Your task to perform on an android device: check google app version Image 0: 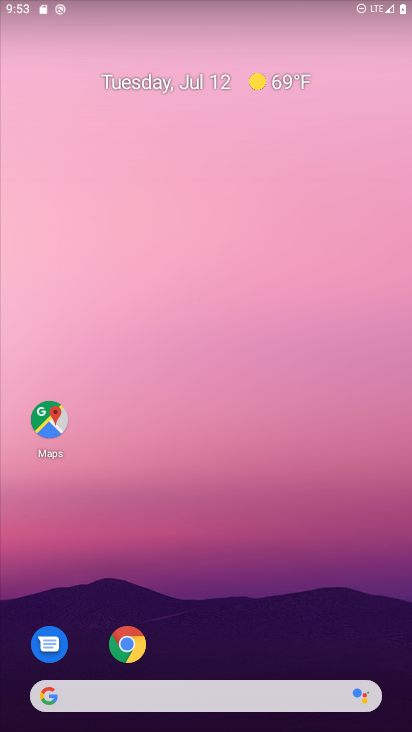
Step 0: drag from (223, 666) to (273, 76)
Your task to perform on an android device: check google app version Image 1: 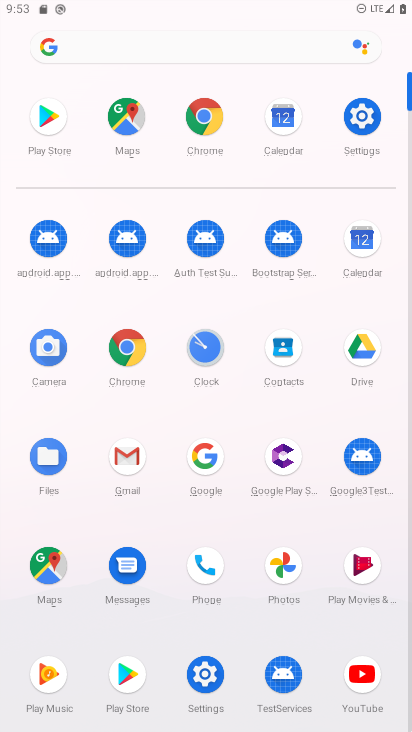
Step 1: click (199, 447)
Your task to perform on an android device: check google app version Image 2: 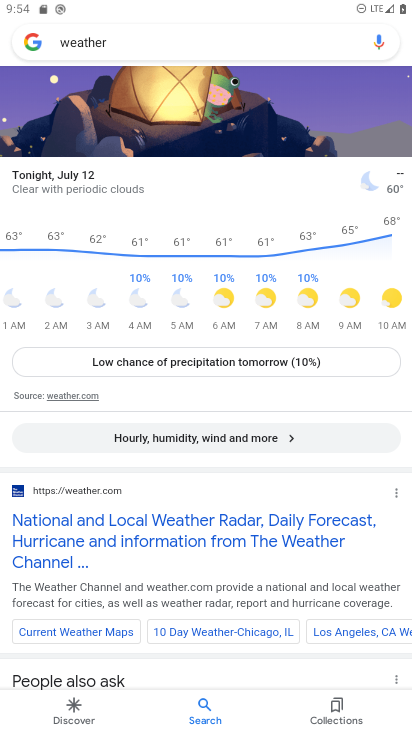
Step 2: click (340, 697)
Your task to perform on an android device: check google app version Image 3: 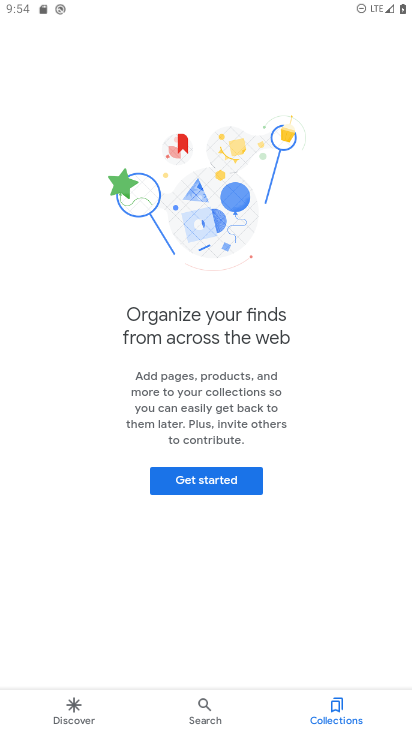
Step 3: click (64, 706)
Your task to perform on an android device: check google app version Image 4: 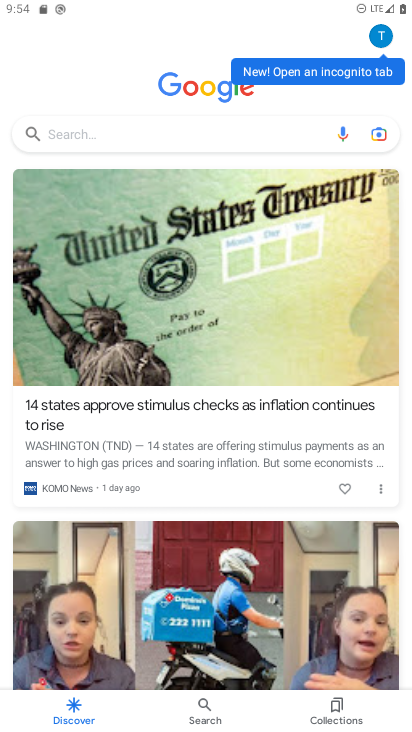
Step 4: click (377, 31)
Your task to perform on an android device: check google app version Image 5: 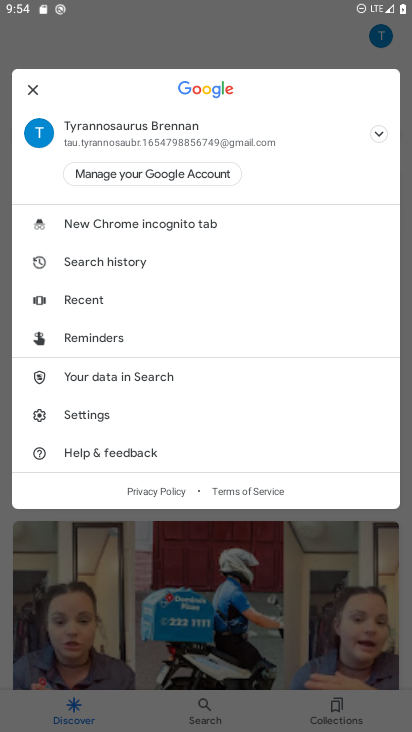
Step 5: click (72, 409)
Your task to perform on an android device: check google app version Image 6: 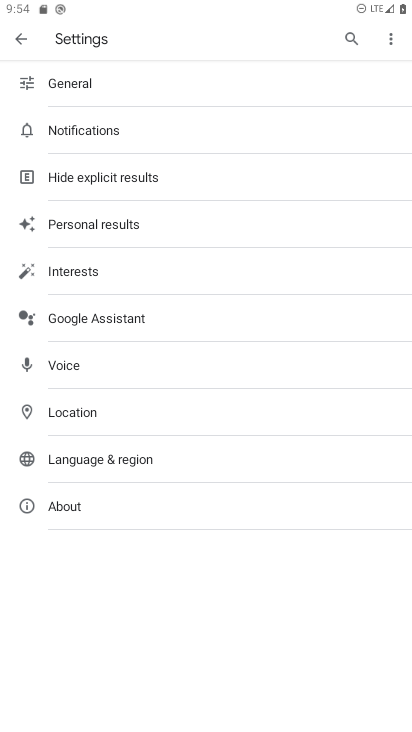
Step 6: click (78, 503)
Your task to perform on an android device: check google app version Image 7: 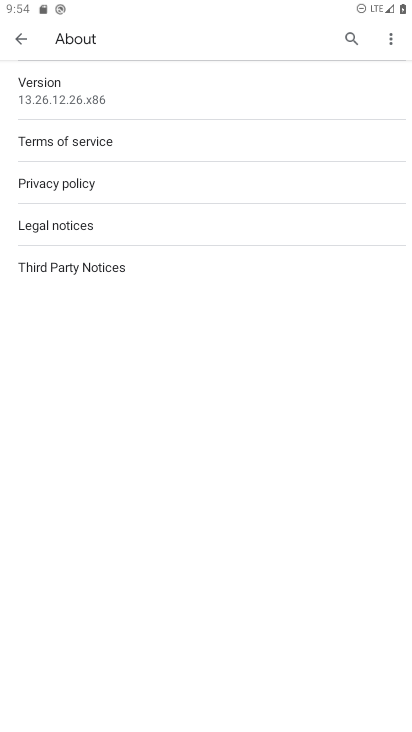
Step 7: task complete